Your task to perform on an android device: Open eBay Image 0: 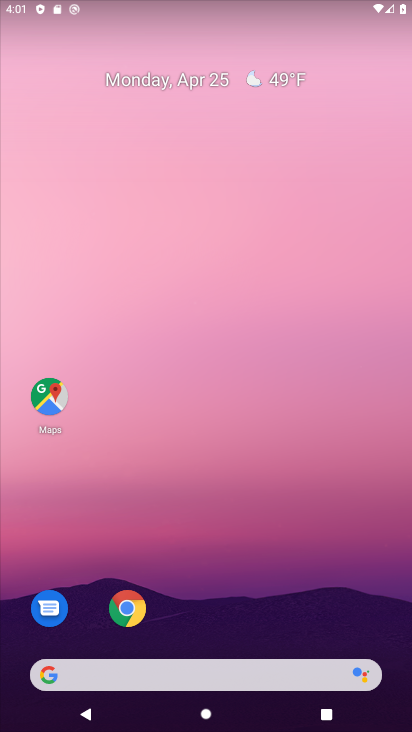
Step 0: click (131, 621)
Your task to perform on an android device: Open eBay Image 1: 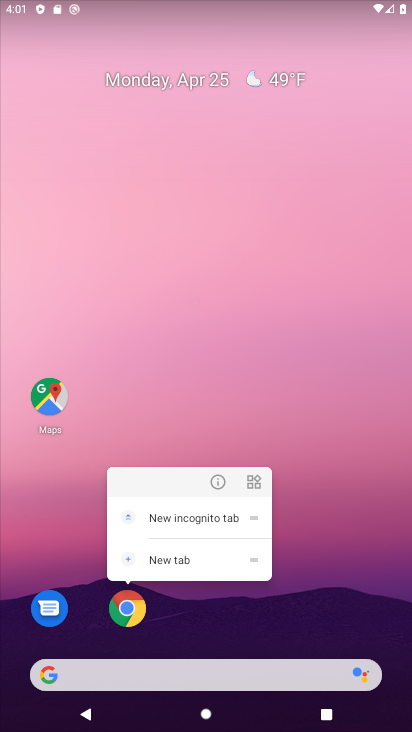
Step 1: click (132, 627)
Your task to perform on an android device: Open eBay Image 2: 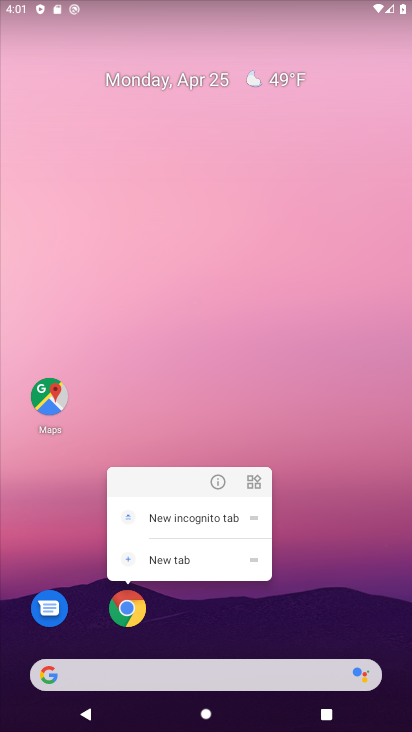
Step 2: click (130, 616)
Your task to perform on an android device: Open eBay Image 3: 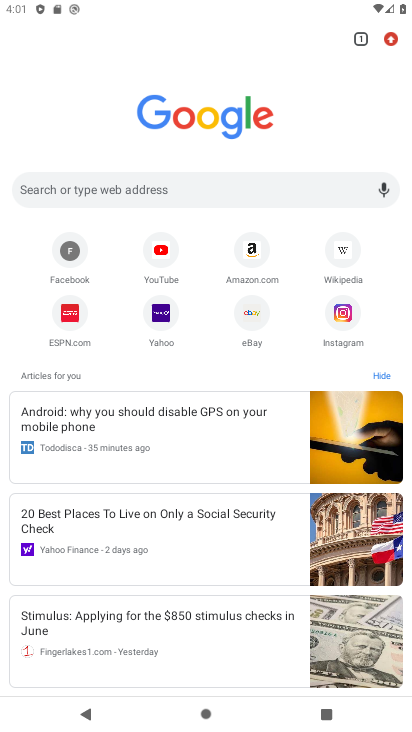
Step 3: click (250, 320)
Your task to perform on an android device: Open eBay Image 4: 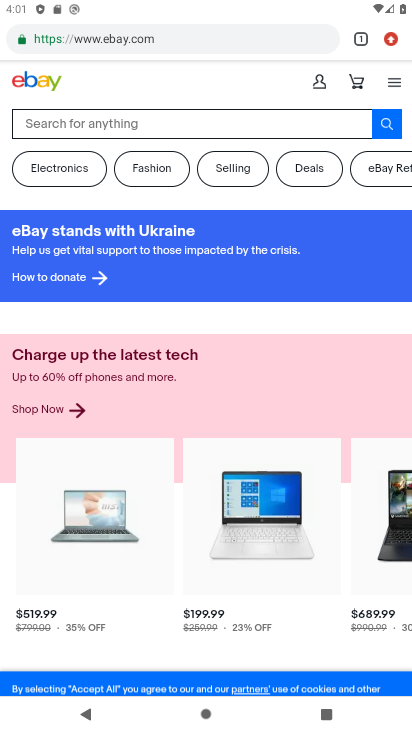
Step 4: task complete